Your task to perform on an android device: turn off notifications in google photos Image 0: 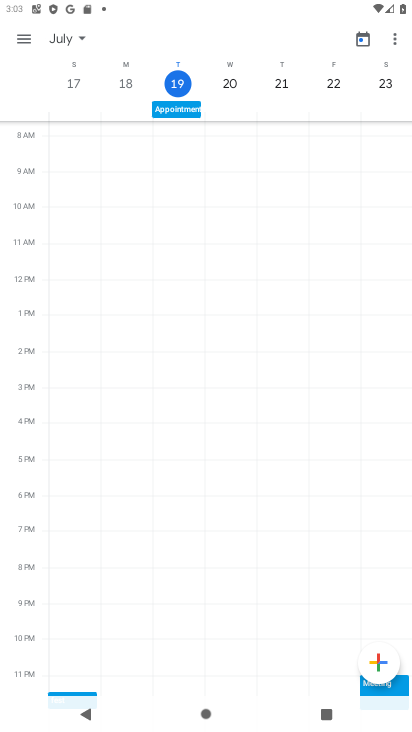
Step 0: press home button
Your task to perform on an android device: turn off notifications in google photos Image 1: 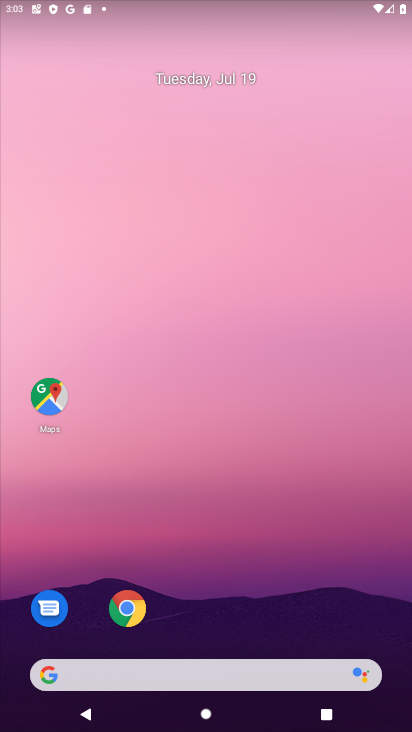
Step 1: drag from (336, 651) to (289, 157)
Your task to perform on an android device: turn off notifications in google photos Image 2: 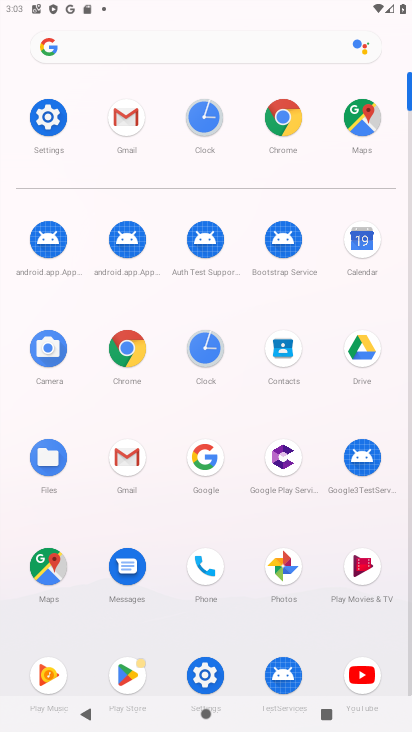
Step 2: click (281, 560)
Your task to perform on an android device: turn off notifications in google photos Image 3: 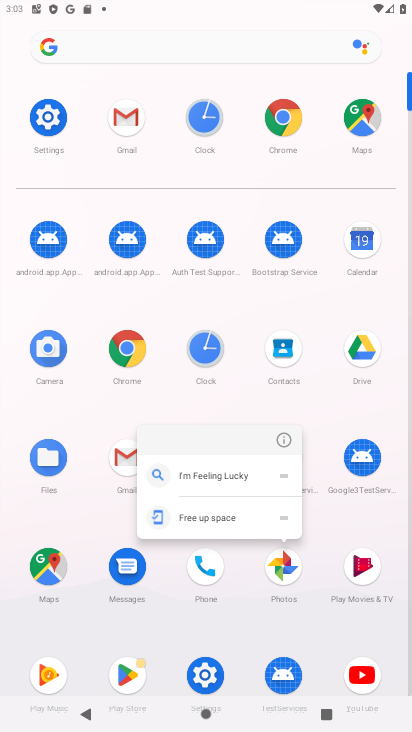
Step 3: click (281, 575)
Your task to perform on an android device: turn off notifications in google photos Image 4: 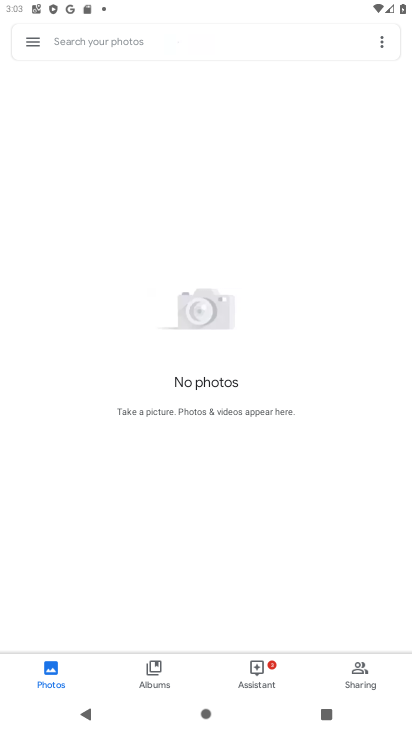
Step 4: click (32, 39)
Your task to perform on an android device: turn off notifications in google photos Image 5: 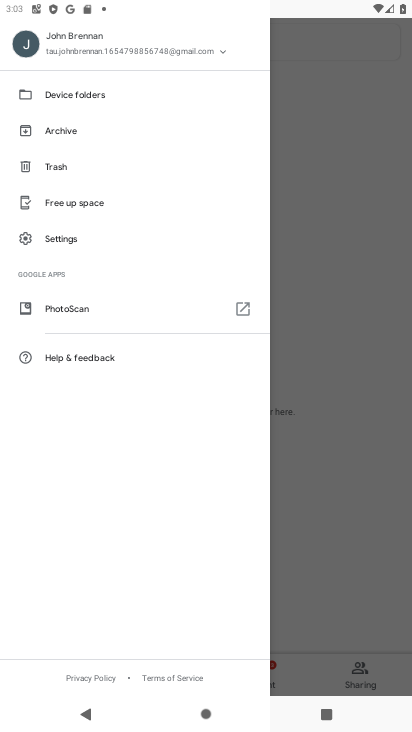
Step 5: click (70, 245)
Your task to perform on an android device: turn off notifications in google photos Image 6: 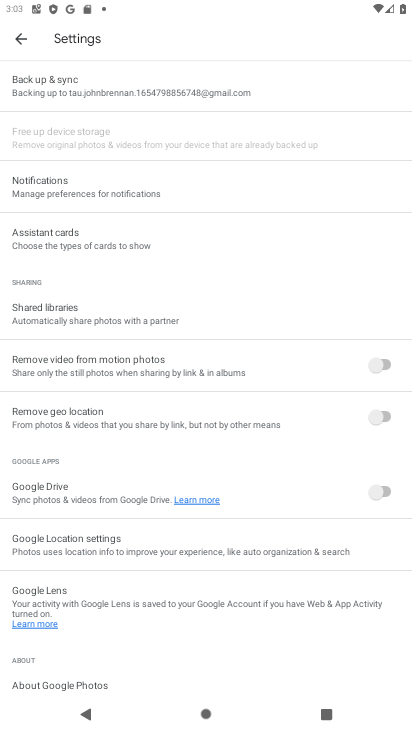
Step 6: click (129, 198)
Your task to perform on an android device: turn off notifications in google photos Image 7: 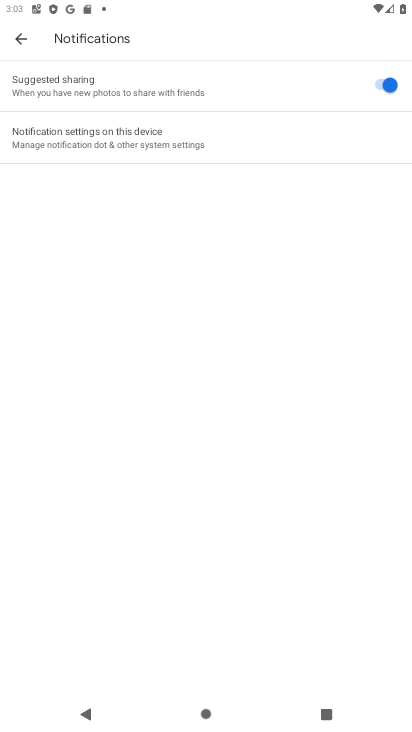
Step 7: click (289, 136)
Your task to perform on an android device: turn off notifications in google photos Image 8: 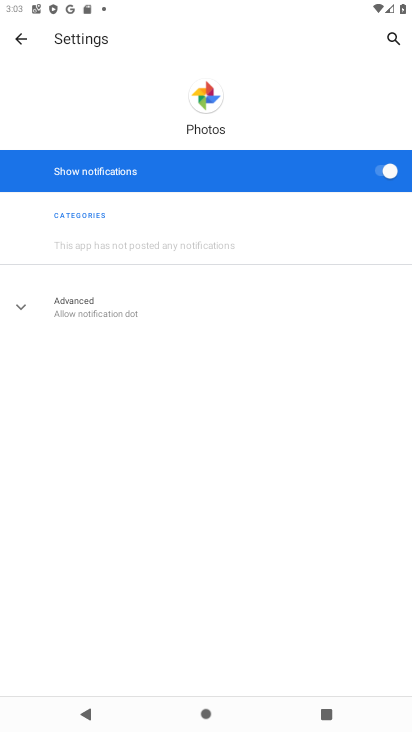
Step 8: click (390, 168)
Your task to perform on an android device: turn off notifications in google photos Image 9: 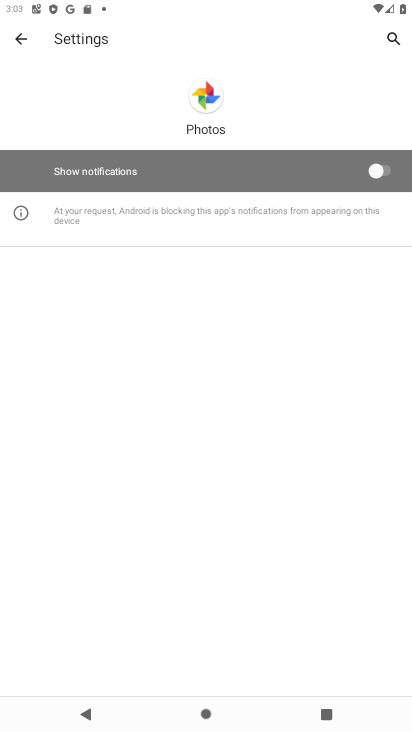
Step 9: task complete